Your task to perform on an android device: change alarm snooze length Image 0: 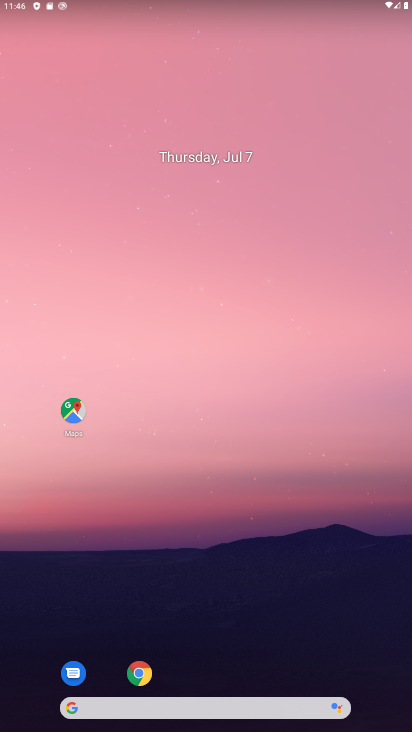
Step 0: drag from (232, 586) to (229, 325)
Your task to perform on an android device: change alarm snooze length Image 1: 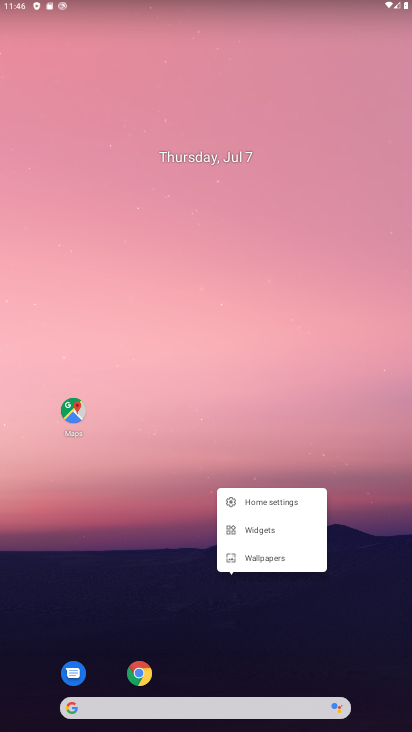
Step 1: drag from (230, 386) to (302, 22)
Your task to perform on an android device: change alarm snooze length Image 2: 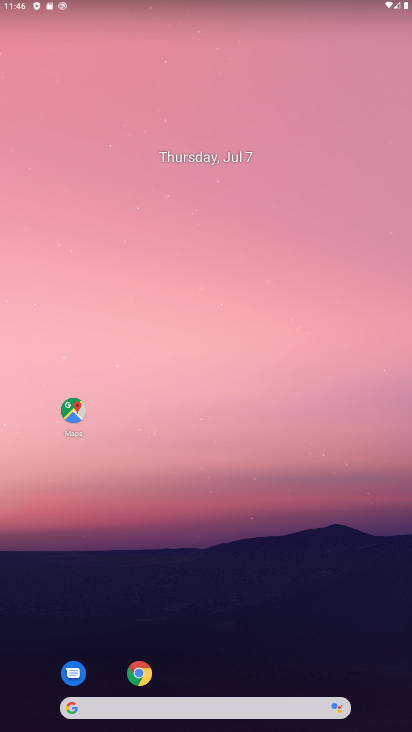
Step 2: drag from (191, 514) to (243, 207)
Your task to perform on an android device: change alarm snooze length Image 3: 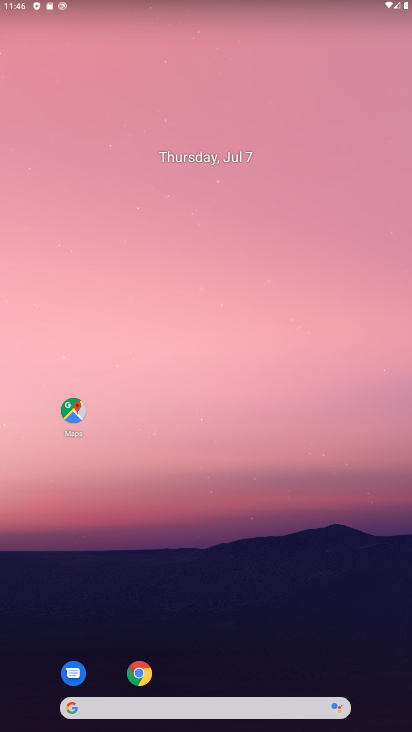
Step 3: drag from (221, 465) to (266, 176)
Your task to perform on an android device: change alarm snooze length Image 4: 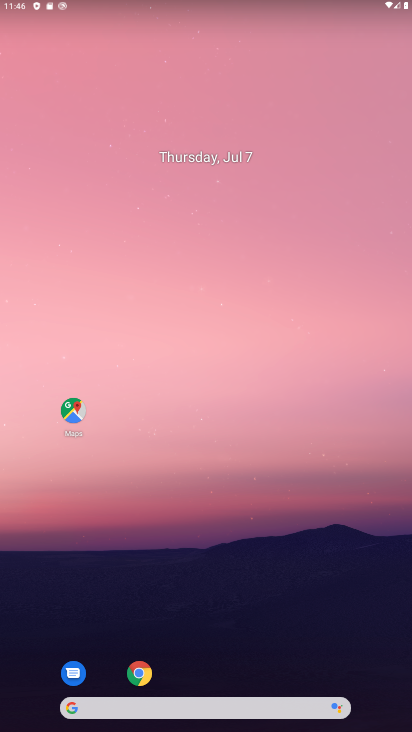
Step 4: drag from (202, 522) to (248, 16)
Your task to perform on an android device: change alarm snooze length Image 5: 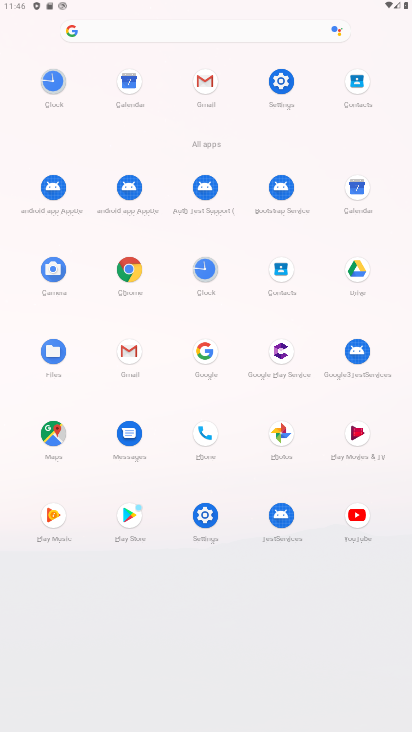
Step 5: click (206, 266)
Your task to perform on an android device: change alarm snooze length Image 6: 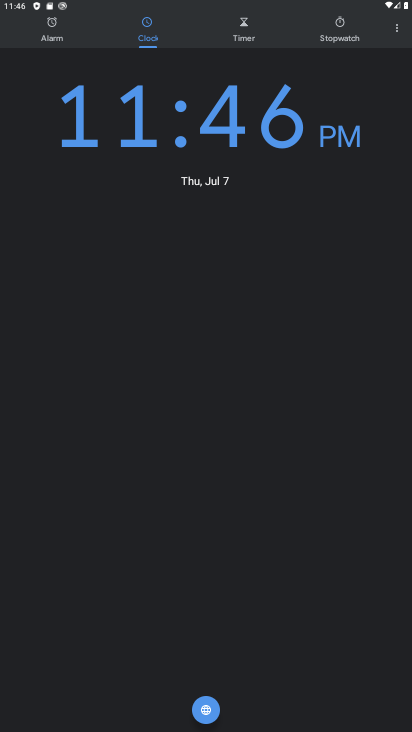
Step 6: click (344, 24)
Your task to perform on an android device: change alarm snooze length Image 7: 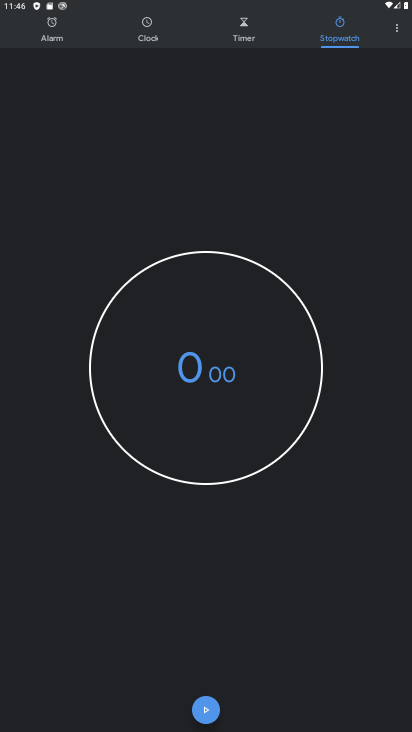
Step 7: click (397, 24)
Your task to perform on an android device: change alarm snooze length Image 8: 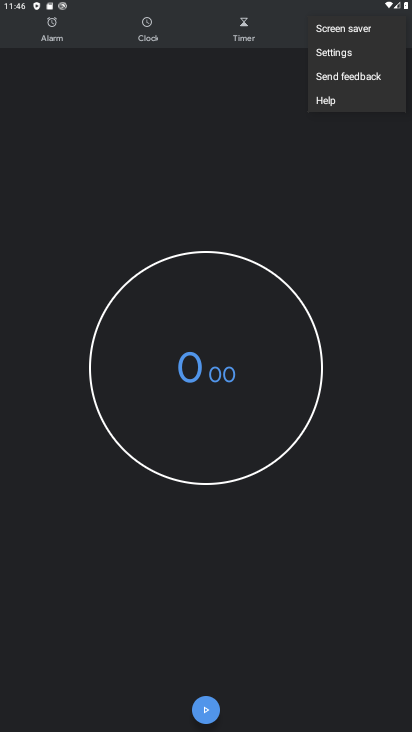
Step 8: click (325, 54)
Your task to perform on an android device: change alarm snooze length Image 9: 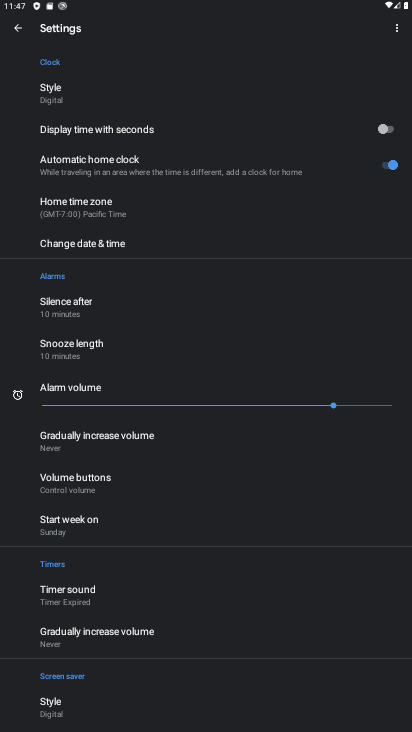
Step 9: click (78, 356)
Your task to perform on an android device: change alarm snooze length Image 10: 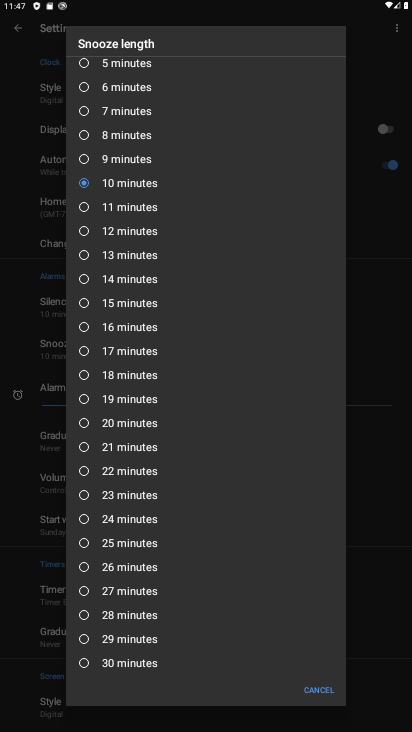
Step 10: click (88, 254)
Your task to perform on an android device: change alarm snooze length Image 11: 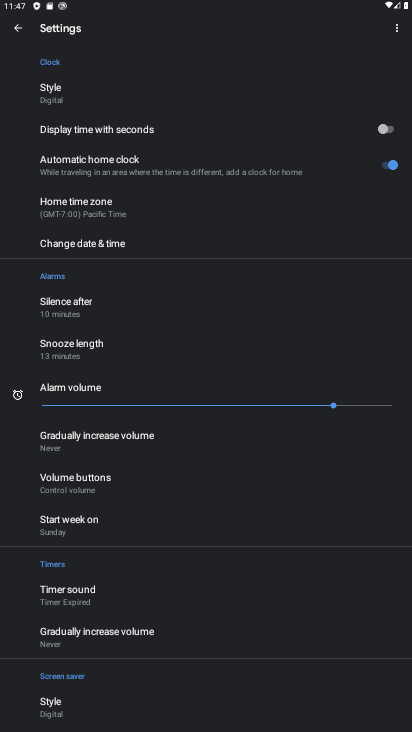
Step 11: task complete